Your task to perform on an android device: open app "Facebook" (install if not already installed) and go to login screen Image 0: 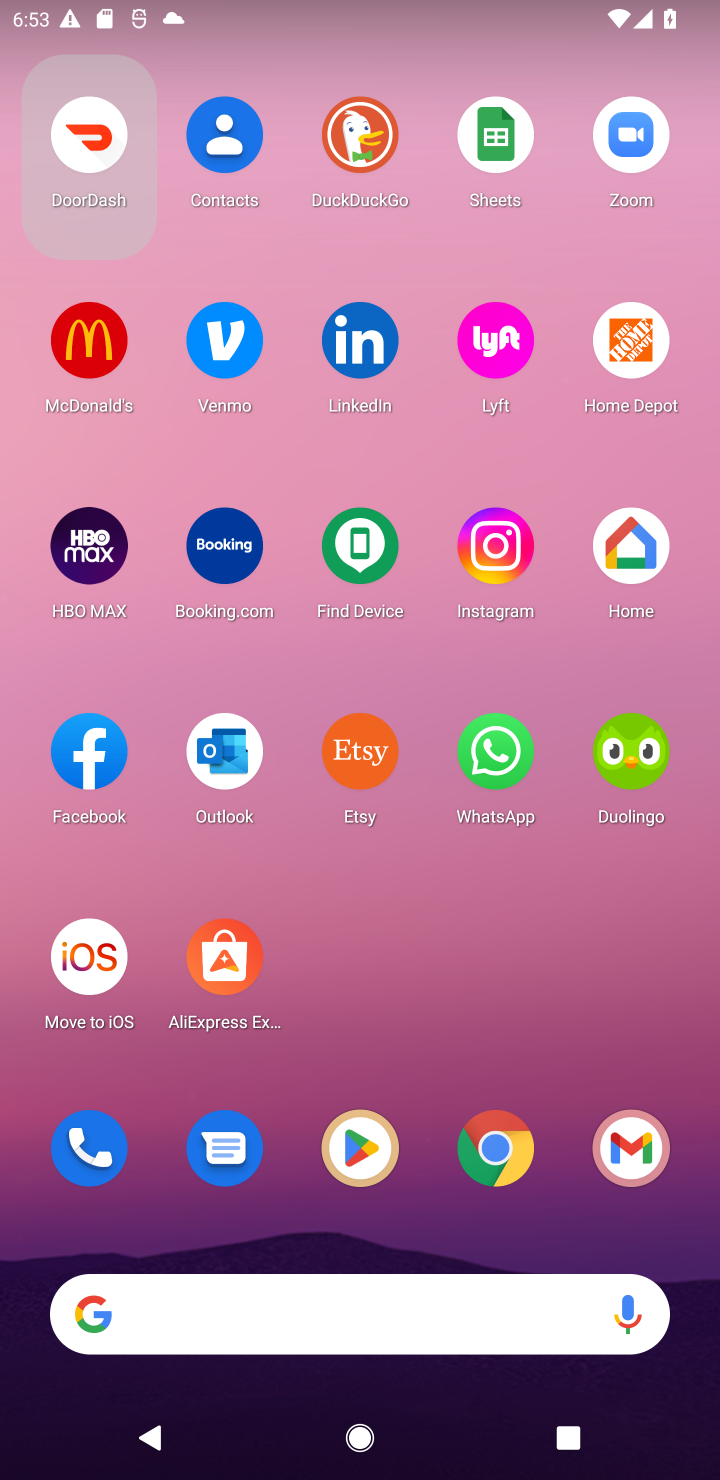
Step 0: drag from (240, 1144) to (482, 200)
Your task to perform on an android device: open app "Facebook" (install if not already installed) and go to login screen Image 1: 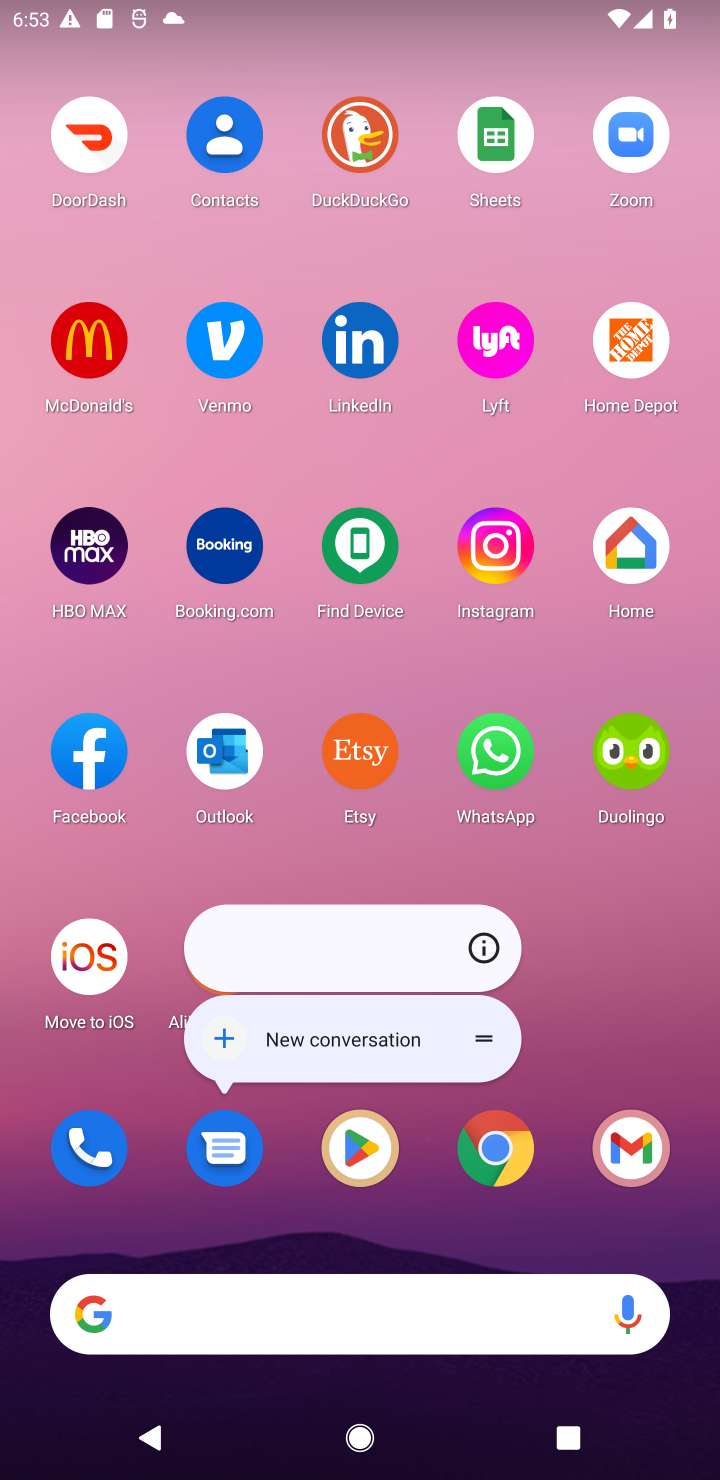
Step 1: click (366, 1172)
Your task to perform on an android device: open app "Facebook" (install if not already installed) and go to login screen Image 2: 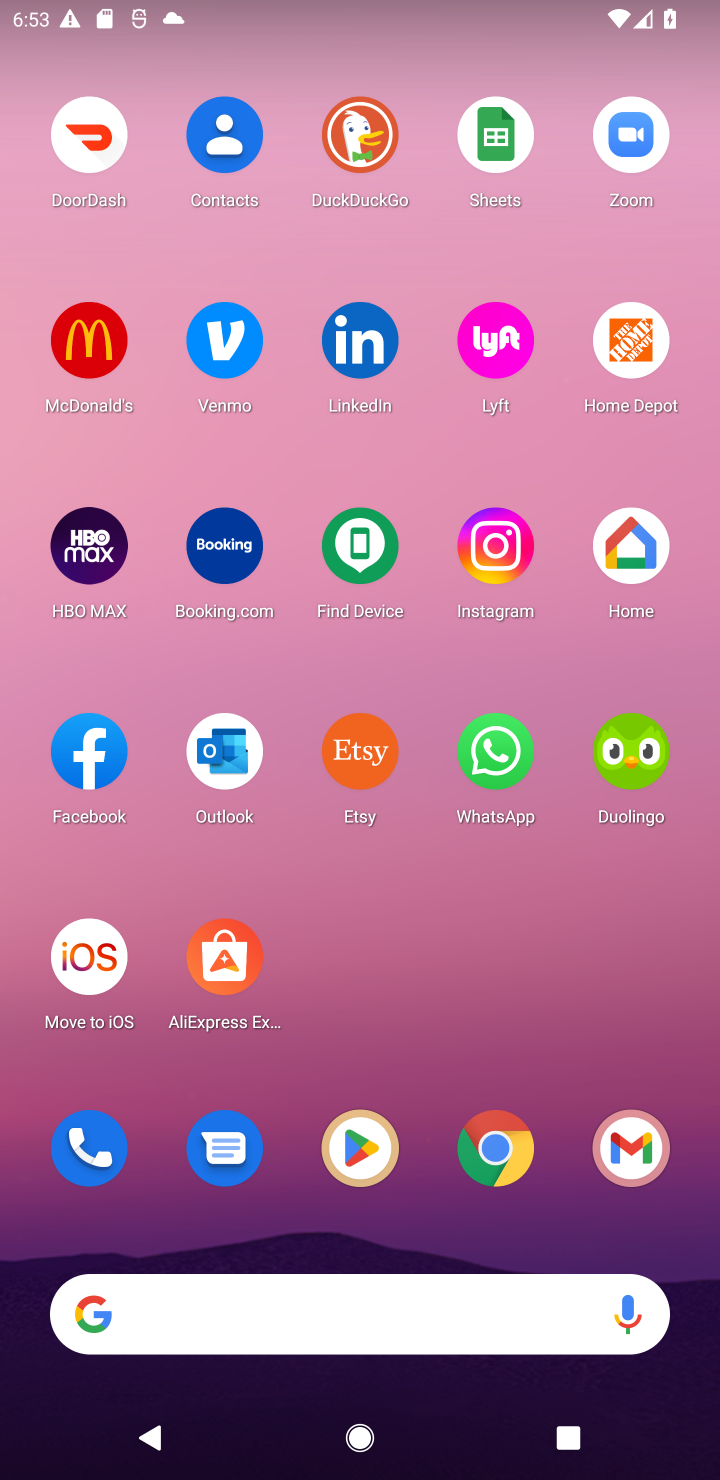
Step 2: click (366, 1140)
Your task to perform on an android device: open app "Facebook" (install if not already installed) and go to login screen Image 3: 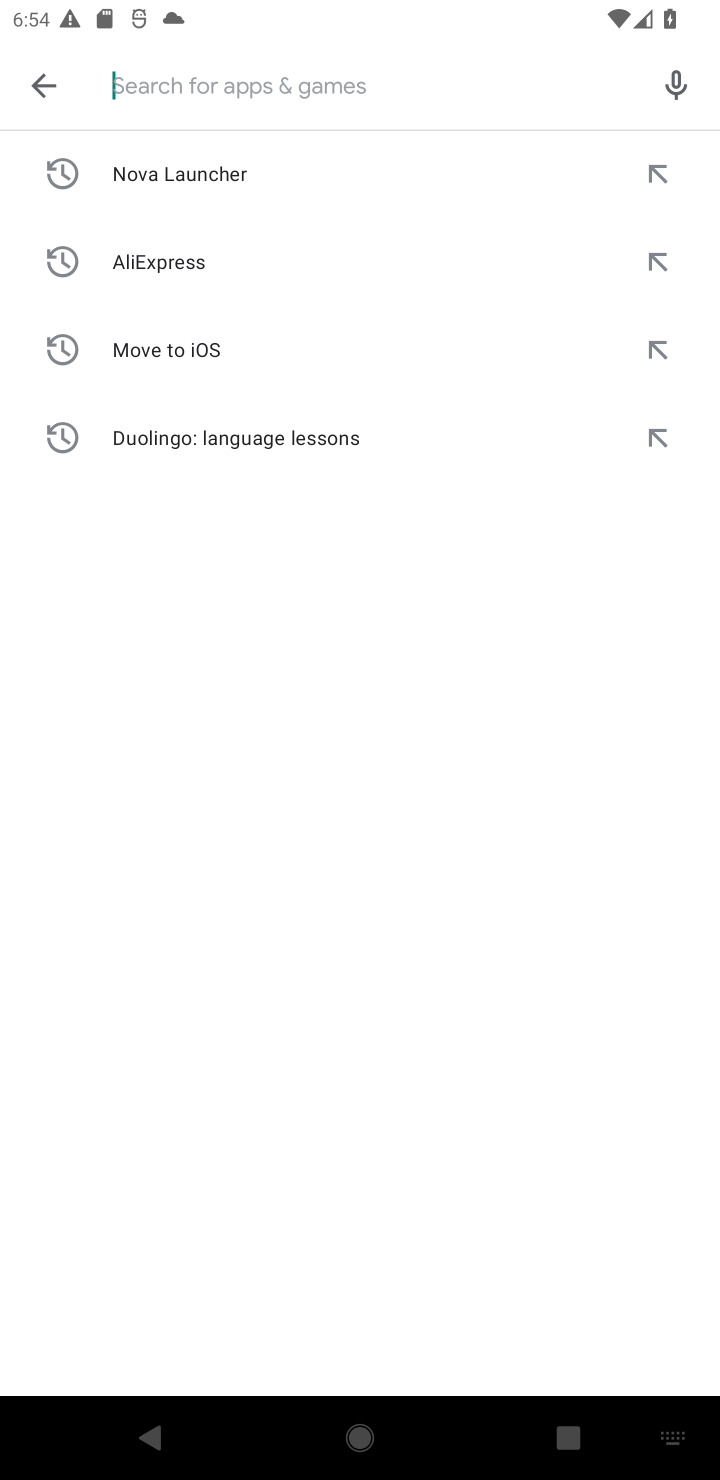
Step 3: type "Facebook"
Your task to perform on an android device: open app "Facebook" (install if not already installed) and go to login screen Image 4: 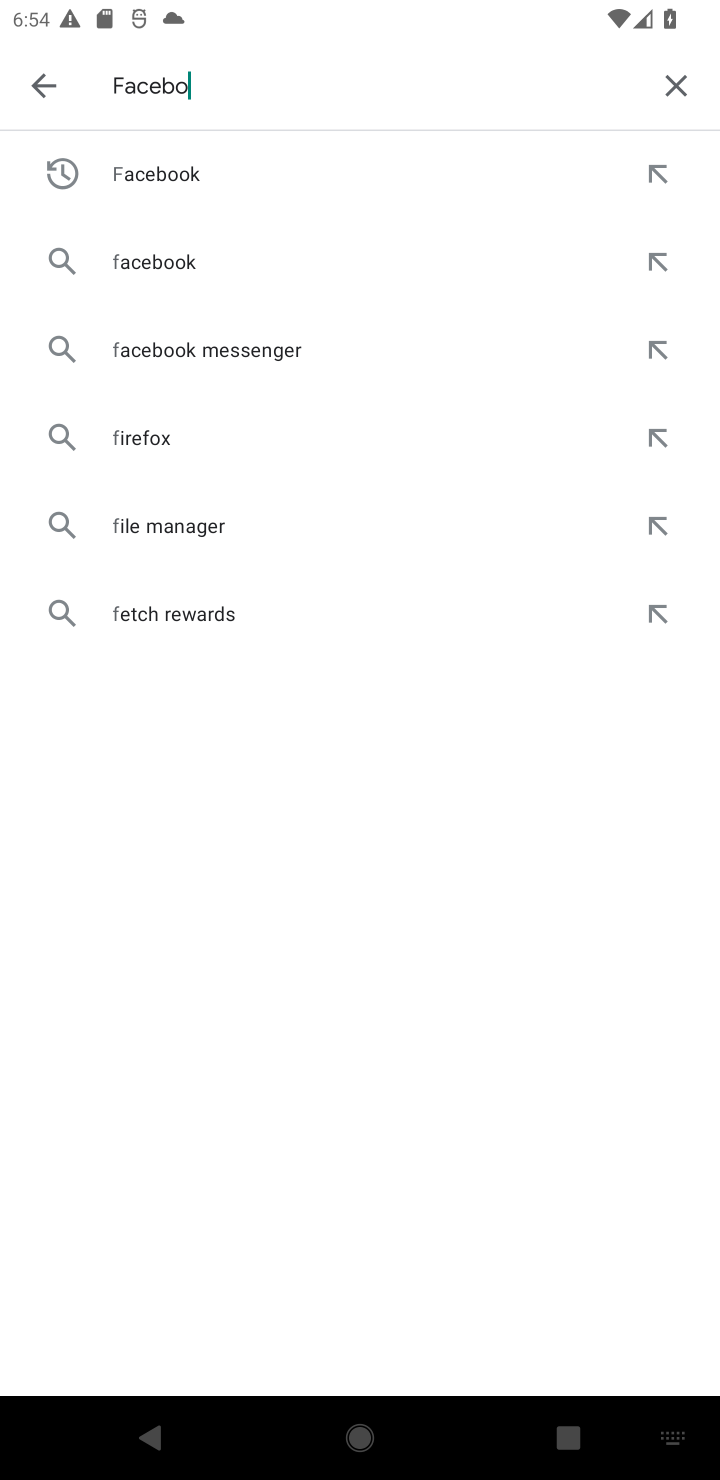
Step 4: press enter
Your task to perform on an android device: open app "Facebook" (install if not already installed) and go to login screen Image 5: 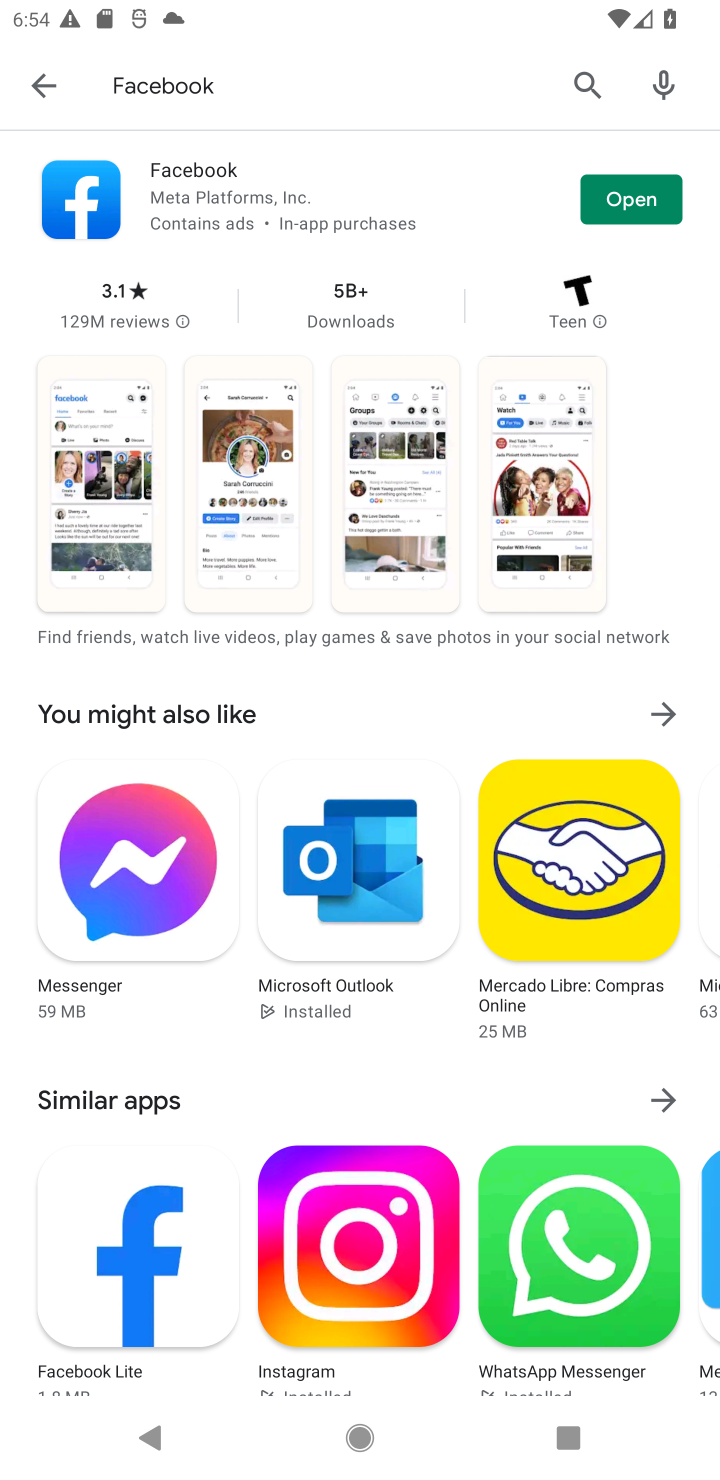
Step 5: click (612, 199)
Your task to perform on an android device: open app "Facebook" (install if not already installed) and go to login screen Image 6: 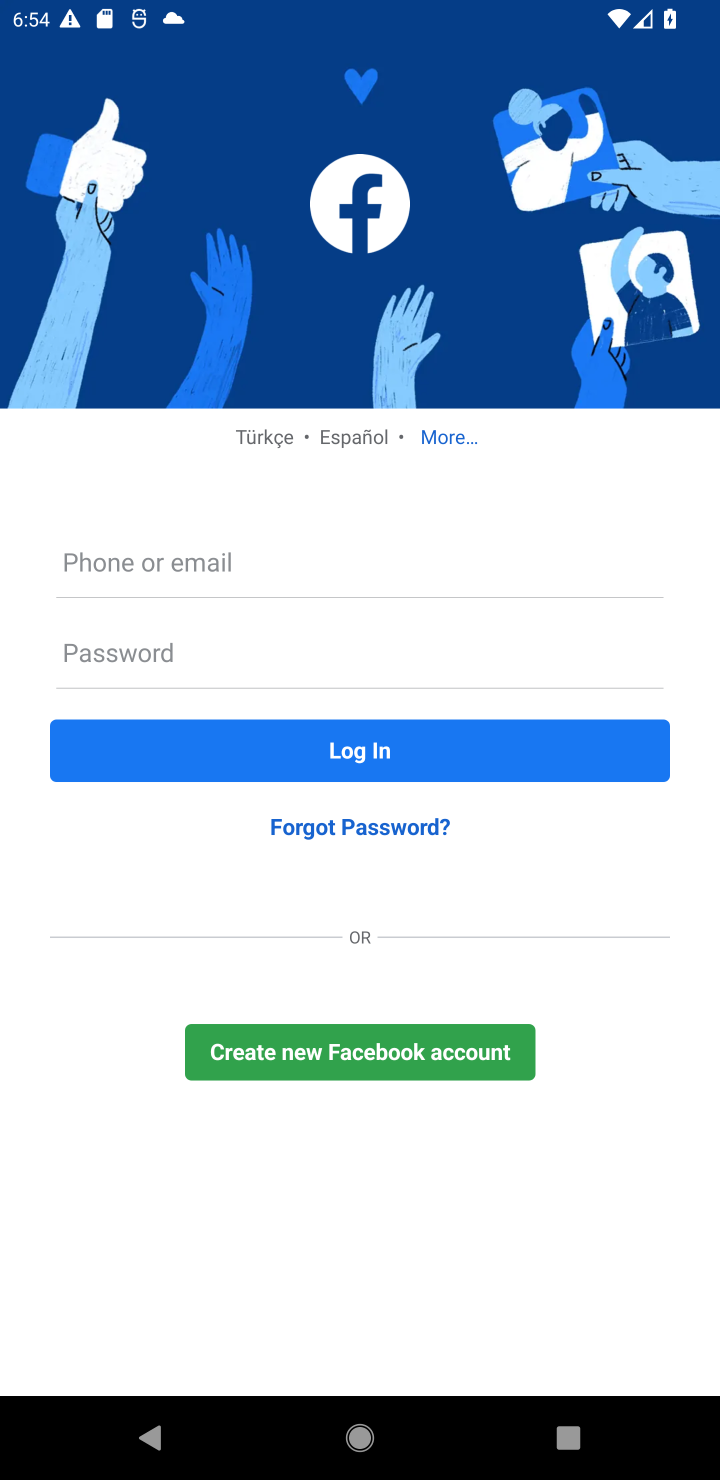
Step 6: task complete